Your task to perform on an android device: Clear the cart on amazon.com. Add razer deathadder to the cart on amazon.com, then select checkout. Image 0: 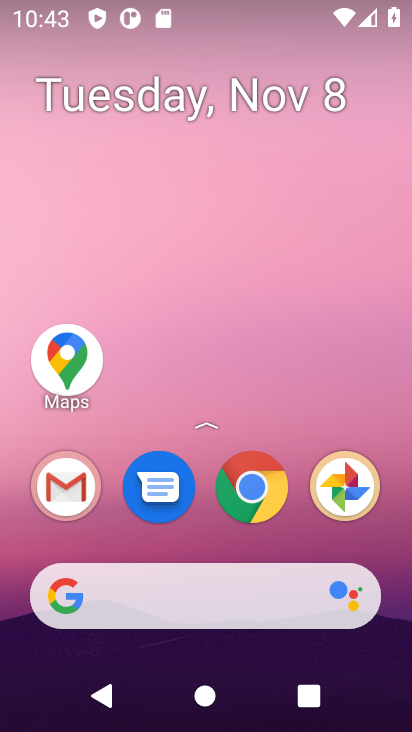
Step 0: click (184, 600)
Your task to perform on an android device: Clear the cart on amazon.com. Add razer deathadder to the cart on amazon.com, then select checkout. Image 1: 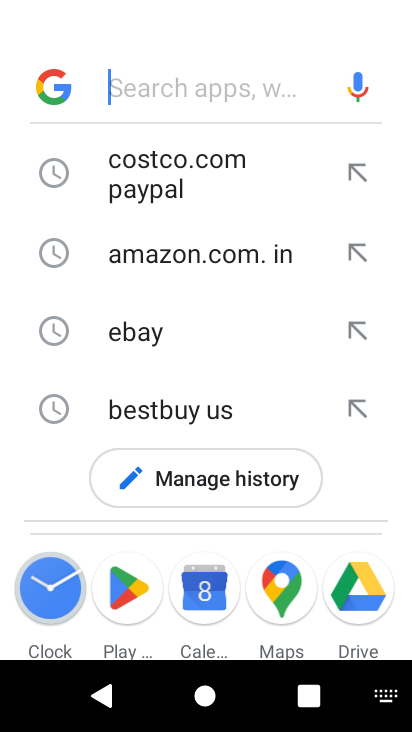
Step 1: type "amazon.com"
Your task to perform on an android device: Clear the cart on amazon.com. Add razer deathadder to the cart on amazon.com, then select checkout. Image 2: 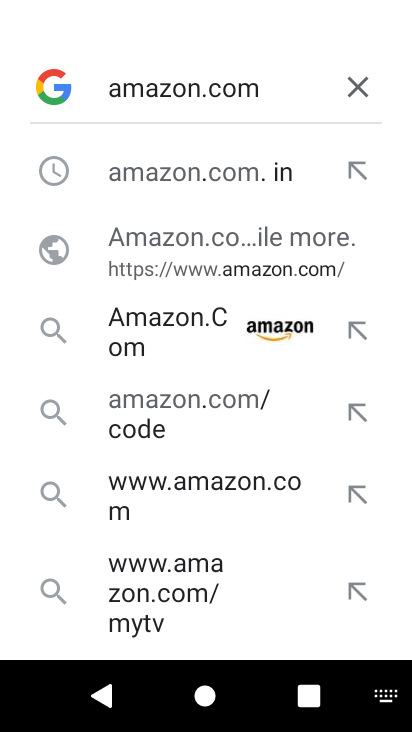
Step 2: click (165, 313)
Your task to perform on an android device: Clear the cart on amazon.com. Add razer deathadder to the cart on amazon.com, then select checkout. Image 3: 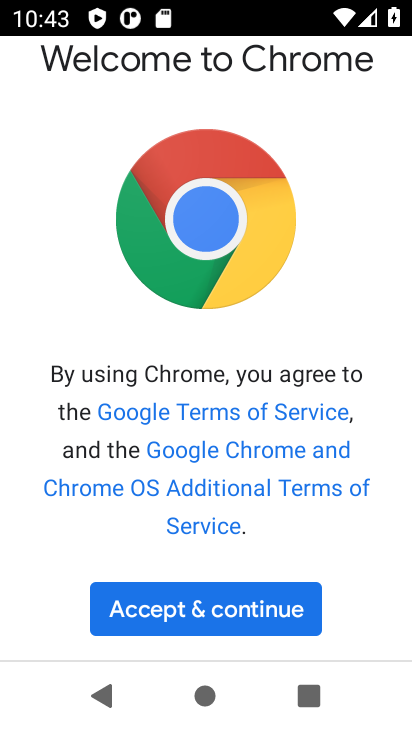
Step 3: click (238, 621)
Your task to perform on an android device: Clear the cart on amazon.com. Add razer deathadder to the cart on amazon.com, then select checkout. Image 4: 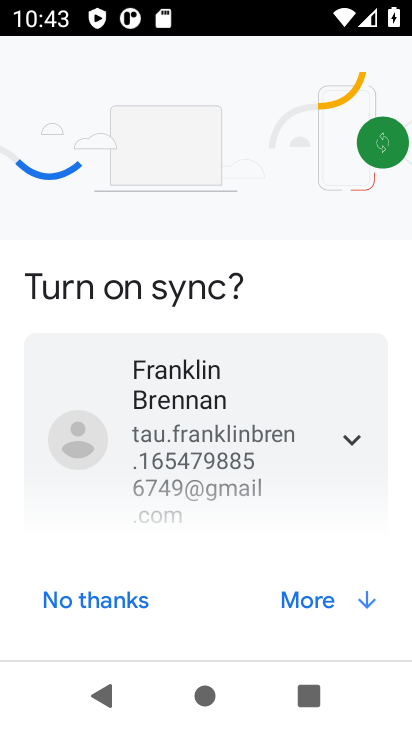
Step 4: click (305, 610)
Your task to perform on an android device: Clear the cart on amazon.com. Add razer deathadder to the cart on amazon.com, then select checkout. Image 5: 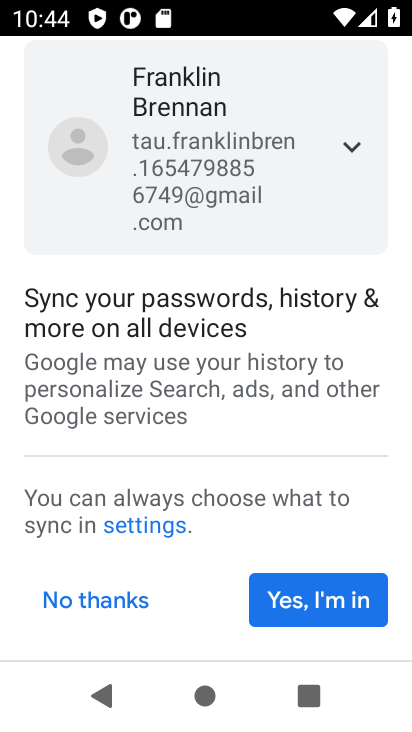
Step 5: click (305, 610)
Your task to perform on an android device: Clear the cart on amazon.com. Add razer deathadder to the cart on amazon.com, then select checkout. Image 6: 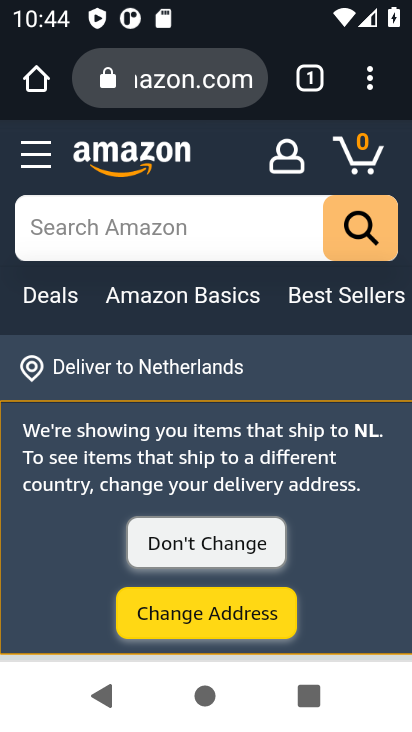
Step 6: click (269, 228)
Your task to perform on an android device: Clear the cart on amazon.com. Add razer deathadder to the cart on amazon.com, then select checkout. Image 7: 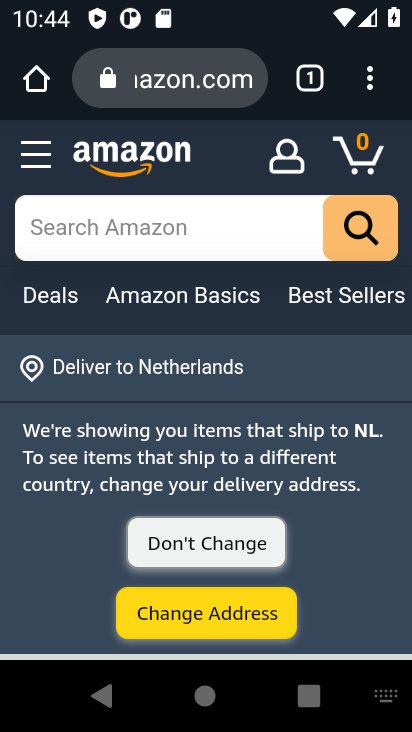
Step 7: type "razer deathadder "
Your task to perform on an android device: Clear the cart on amazon.com. Add razer deathadder to the cart on amazon.com, then select checkout. Image 8: 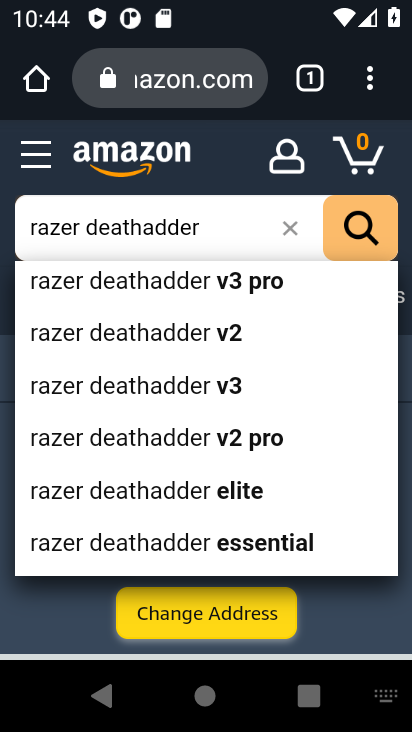
Step 8: type " z"
Your task to perform on an android device: Clear the cart on amazon.com. Add razer deathadder to the cart on amazon.com, then select checkout. Image 9: 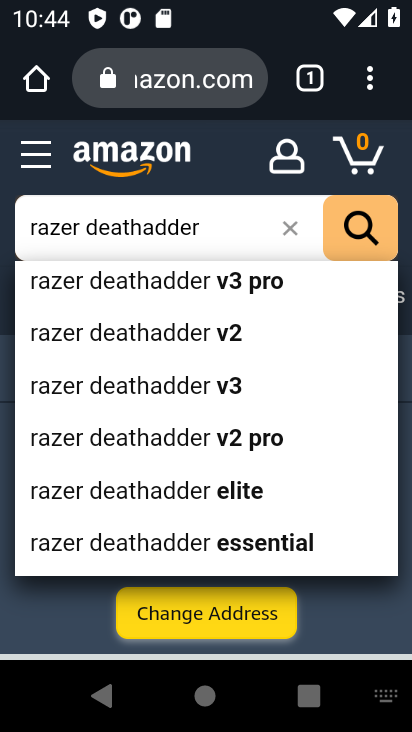
Step 9: click (145, 489)
Your task to perform on an android device: Clear the cart on amazon.com. Add razer deathadder to the cart on amazon.com, then select checkout. Image 10: 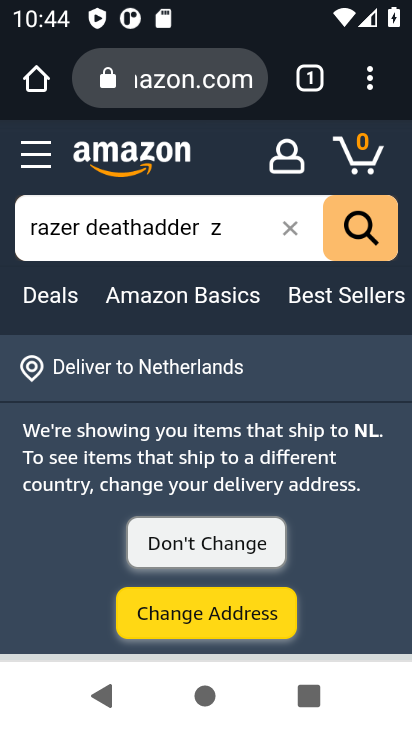
Step 10: click (145, 489)
Your task to perform on an android device: Clear the cart on amazon.com. Add razer deathadder to the cart on amazon.com, then select checkout. Image 11: 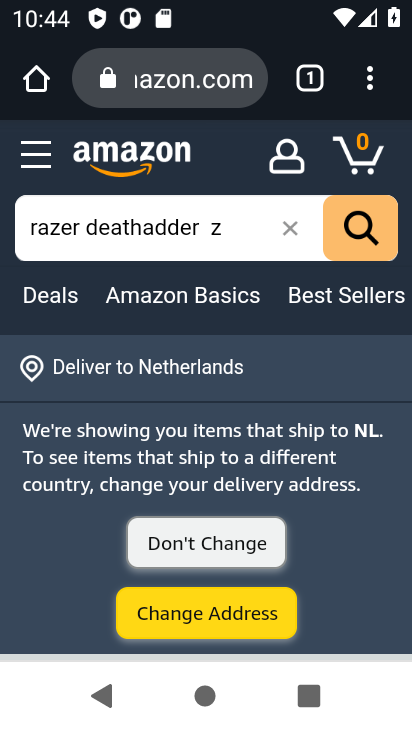
Step 11: click (360, 215)
Your task to perform on an android device: Clear the cart on amazon.com. Add razer deathadder to the cart on amazon.com, then select checkout. Image 12: 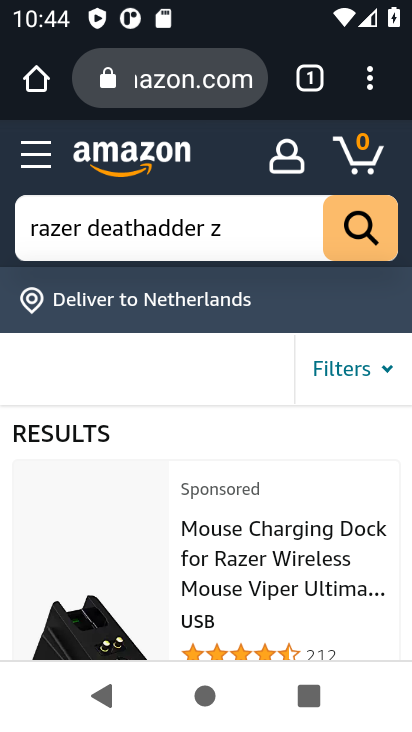
Step 12: click (286, 565)
Your task to perform on an android device: Clear the cart on amazon.com. Add razer deathadder to the cart on amazon.com, then select checkout. Image 13: 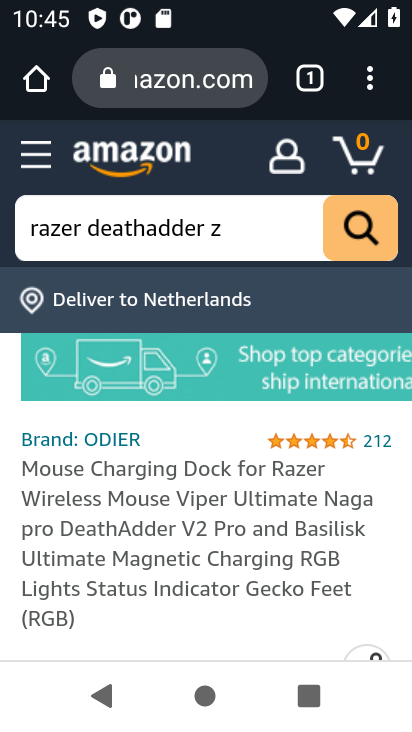
Step 13: drag from (243, 527) to (216, 151)
Your task to perform on an android device: Clear the cart on amazon.com. Add razer deathadder to the cart on amazon.com, then select checkout. Image 14: 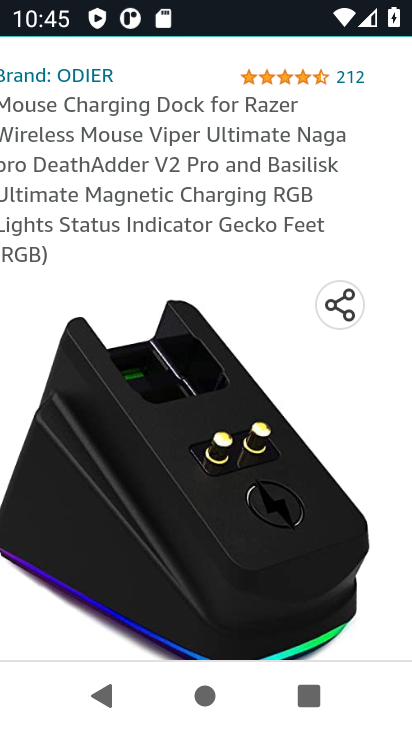
Step 14: click (192, 438)
Your task to perform on an android device: Clear the cart on amazon.com. Add razer deathadder to the cart on amazon.com, then select checkout. Image 15: 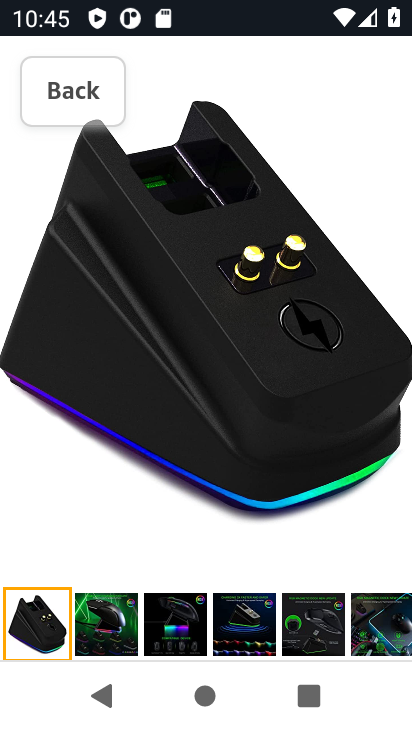
Step 15: click (91, 98)
Your task to perform on an android device: Clear the cart on amazon.com. Add razer deathadder to the cart on amazon.com, then select checkout. Image 16: 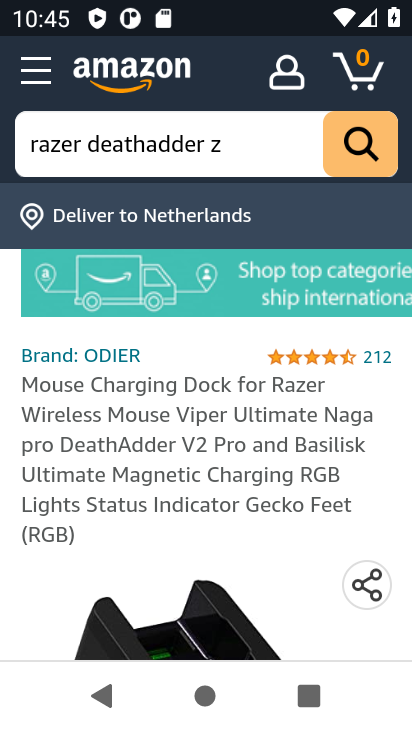
Step 16: click (91, 98)
Your task to perform on an android device: Clear the cart on amazon.com. Add razer deathadder to the cart on amazon.com, then select checkout. Image 17: 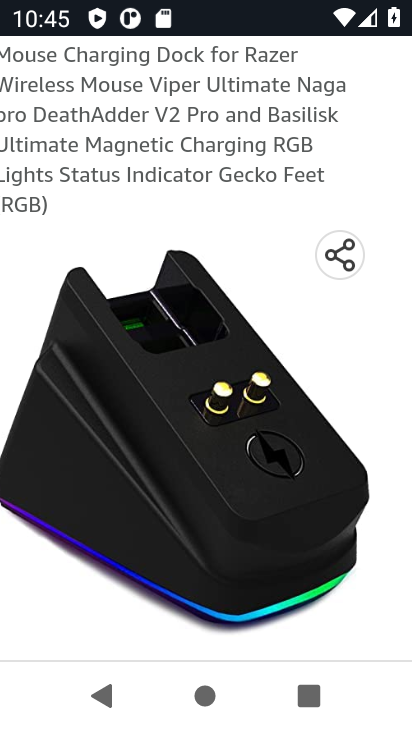
Step 17: drag from (185, 513) to (185, 365)
Your task to perform on an android device: Clear the cart on amazon.com. Add razer deathadder to the cart on amazon.com, then select checkout. Image 18: 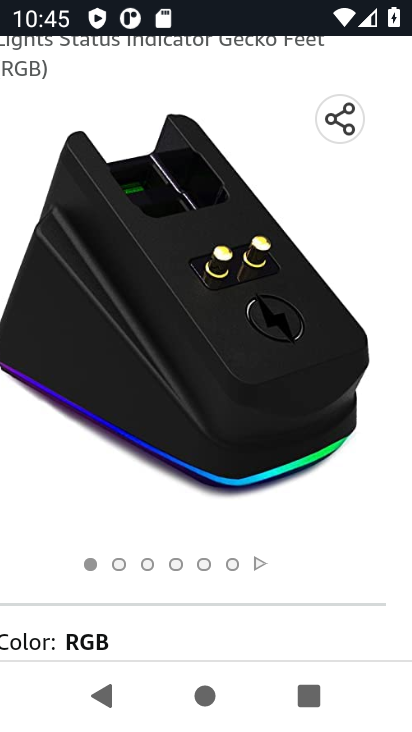
Step 18: drag from (148, 497) to (157, 287)
Your task to perform on an android device: Clear the cart on amazon.com. Add razer deathadder to the cart on amazon.com, then select checkout. Image 19: 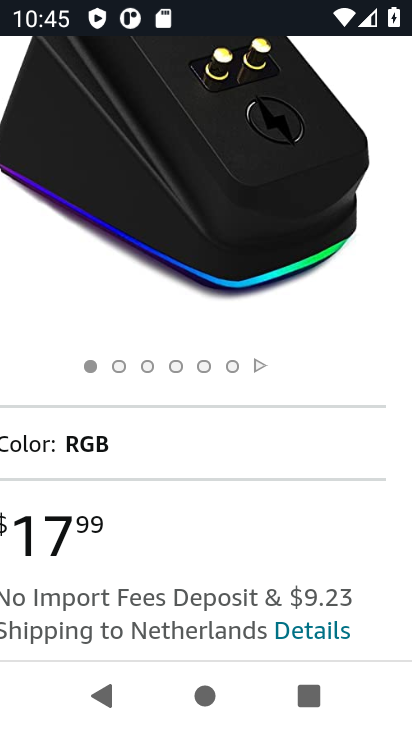
Step 19: drag from (182, 566) to (229, 289)
Your task to perform on an android device: Clear the cart on amazon.com. Add razer deathadder to the cart on amazon.com, then select checkout. Image 20: 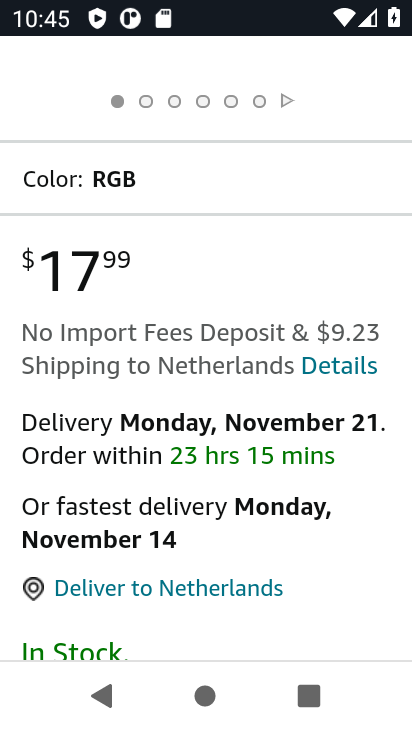
Step 20: drag from (186, 591) to (207, 383)
Your task to perform on an android device: Clear the cart on amazon.com. Add razer deathadder to the cart on amazon.com, then select checkout. Image 21: 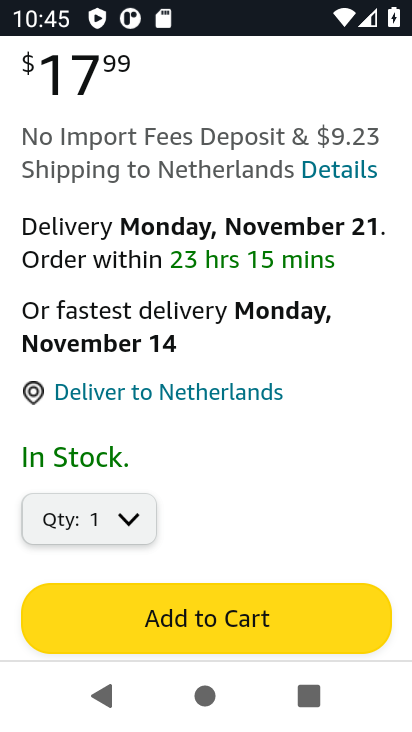
Step 21: click (194, 605)
Your task to perform on an android device: Clear the cart on amazon.com. Add razer deathadder to the cart on amazon.com, then select checkout. Image 22: 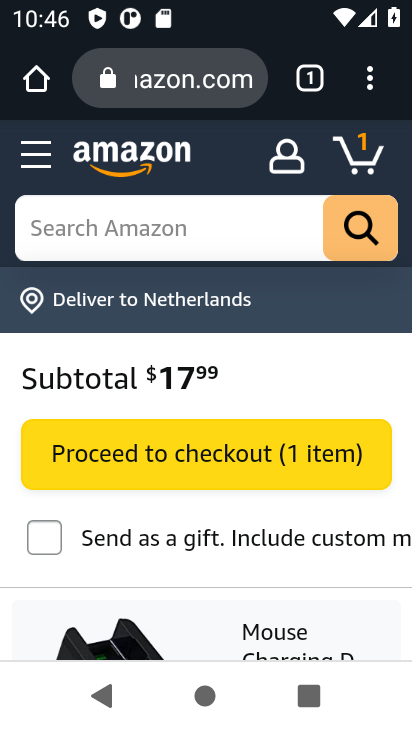
Step 22: click (189, 456)
Your task to perform on an android device: Clear the cart on amazon.com. Add razer deathadder to the cart on amazon.com, then select checkout. Image 23: 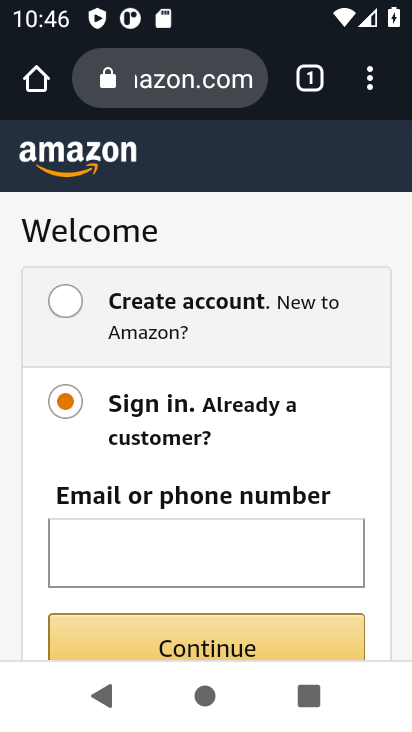
Step 23: task complete